Your task to perform on an android device: see creations saved in the google photos Image 0: 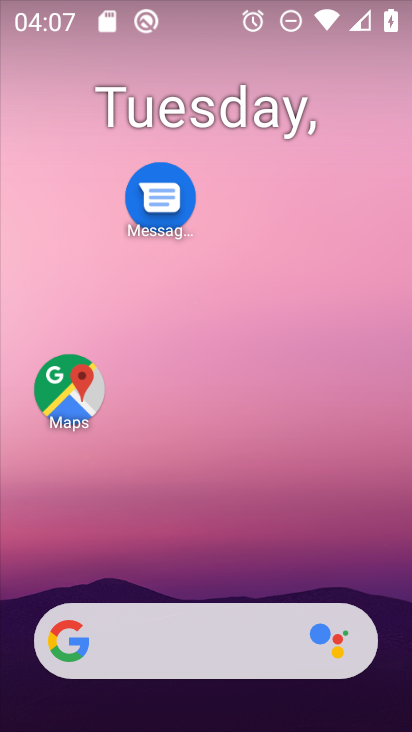
Step 0: drag from (217, 546) to (250, 154)
Your task to perform on an android device: see creations saved in the google photos Image 1: 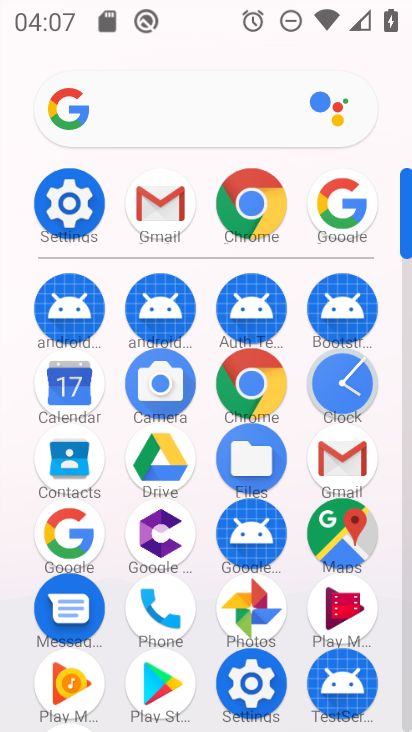
Step 1: click (257, 616)
Your task to perform on an android device: see creations saved in the google photos Image 2: 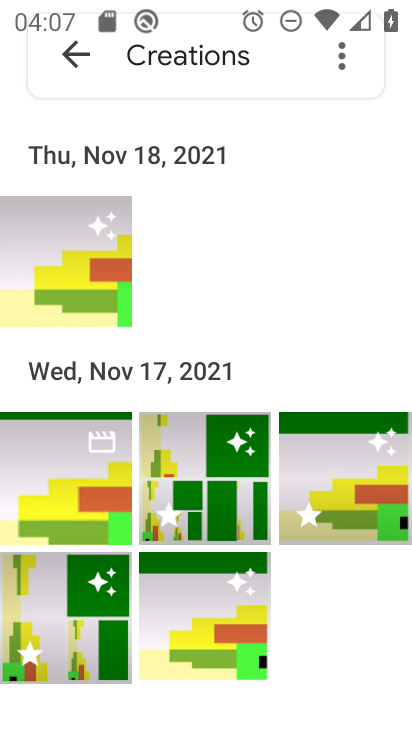
Step 2: task complete